Your task to perform on an android device: turn off wifi Image 0: 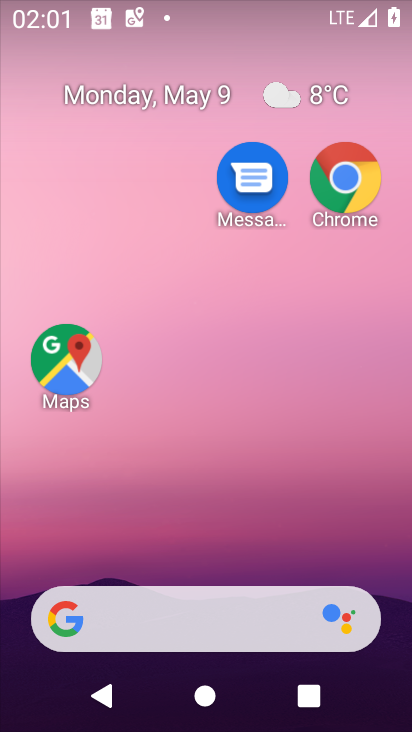
Step 0: drag from (259, 114) to (409, 620)
Your task to perform on an android device: turn off wifi Image 1: 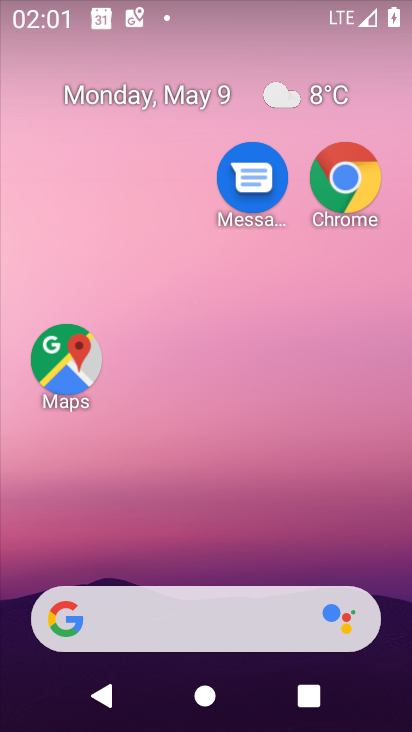
Step 1: drag from (201, 700) to (13, 16)
Your task to perform on an android device: turn off wifi Image 2: 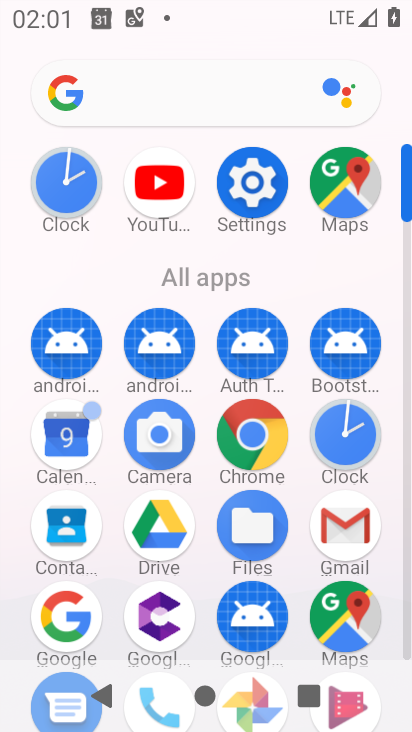
Step 2: click (279, 177)
Your task to perform on an android device: turn off wifi Image 3: 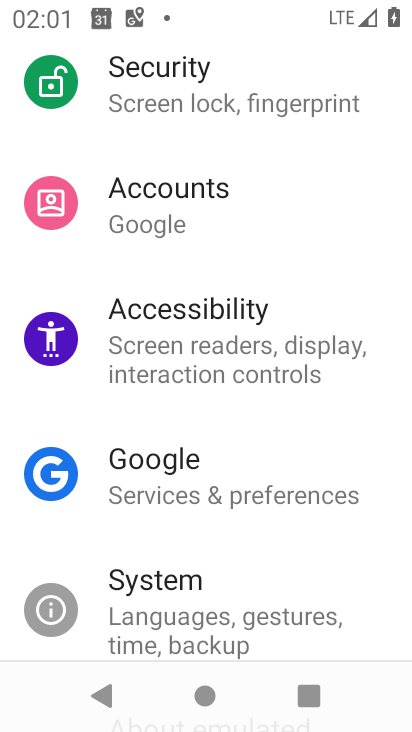
Step 3: drag from (258, 143) to (398, 662)
Your task to perform on an android device: turn off wifi Image 4: 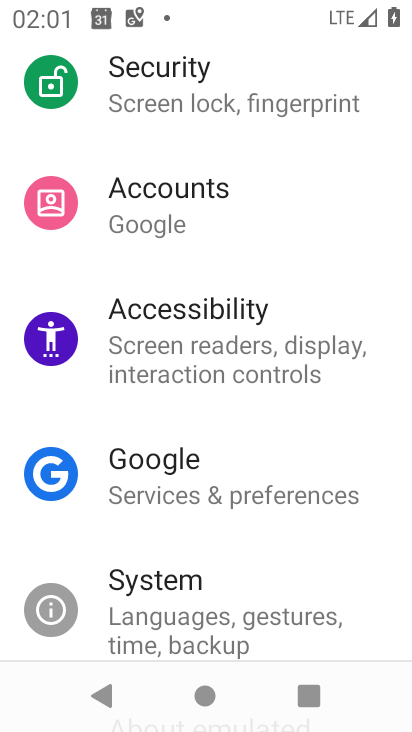
Step 4: drag from (144, 141) to (292, 656)
Your task to perform on an android device: turn off wifi Image 5: 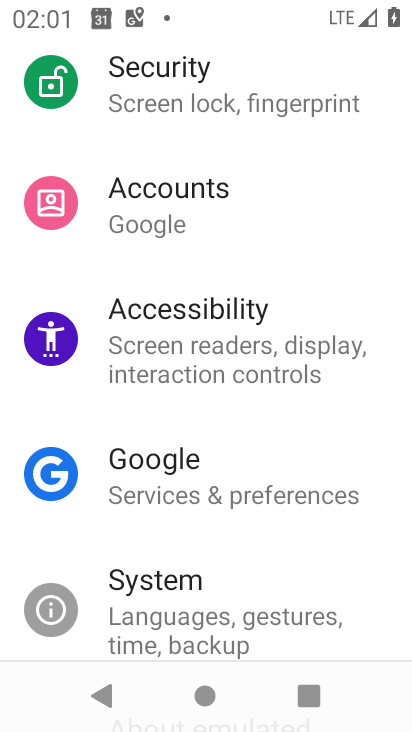
Step 5: drag from (120, 143) to (210, 509)
Your task to perform on an android device: turn off wifi Image 6: 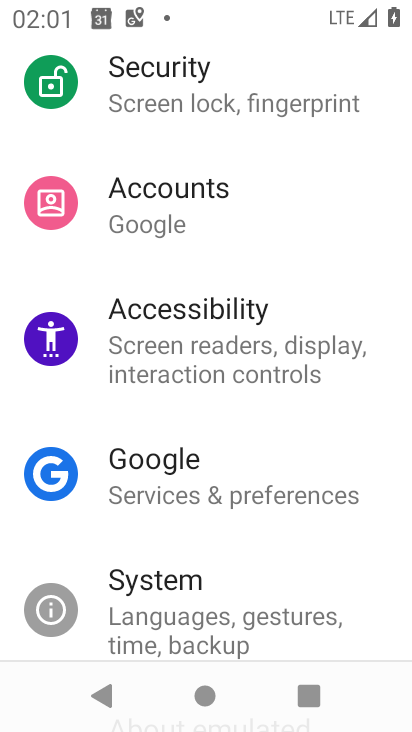
Step 6: drag from (245, 231) to (268, 572)
Your task to perform on an android device: turn off wifi Image 7: 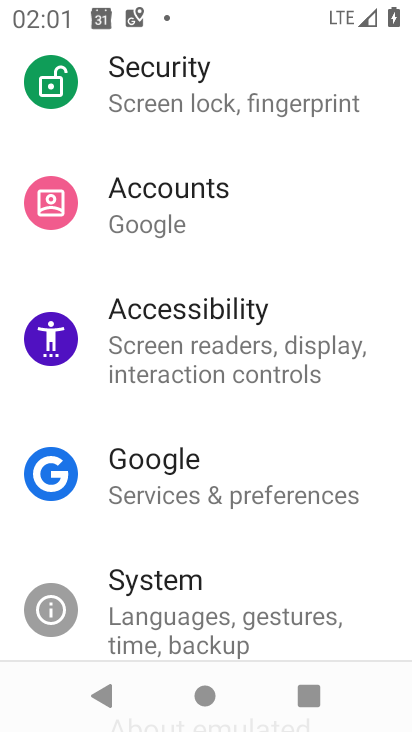
Step 7: drag from (260, 512) to (206, 262)
Your task to perform on an android device: turn off wifi Image 8: 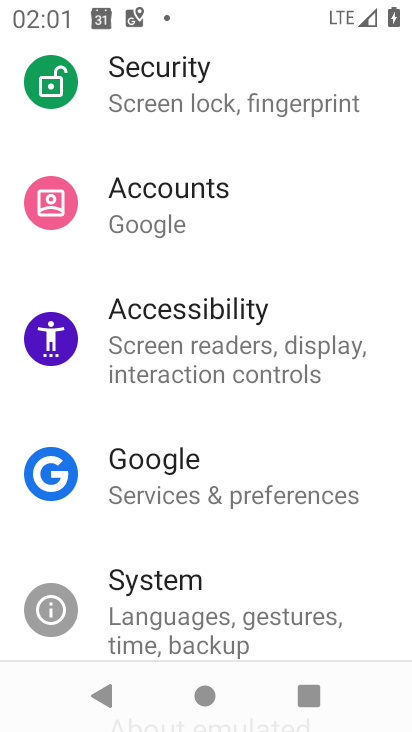
Step 8: drag from (205, 166) to (225, 487)
Your task to perform on an android device: turn off wifi Image 9: 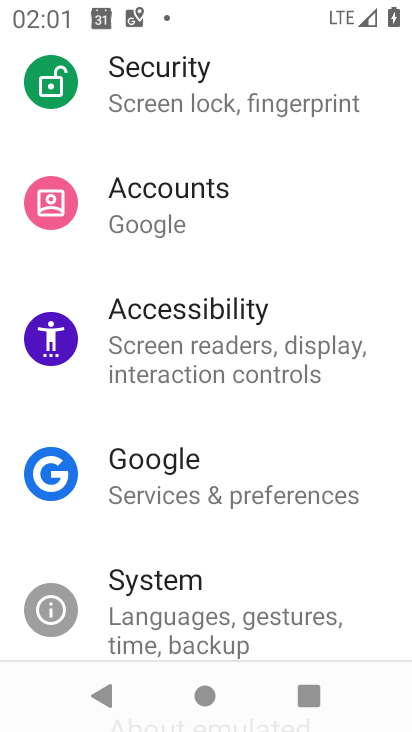
Step 9: click (102, 697)
Your task to perform on an android device: turn off wifi Image 10: 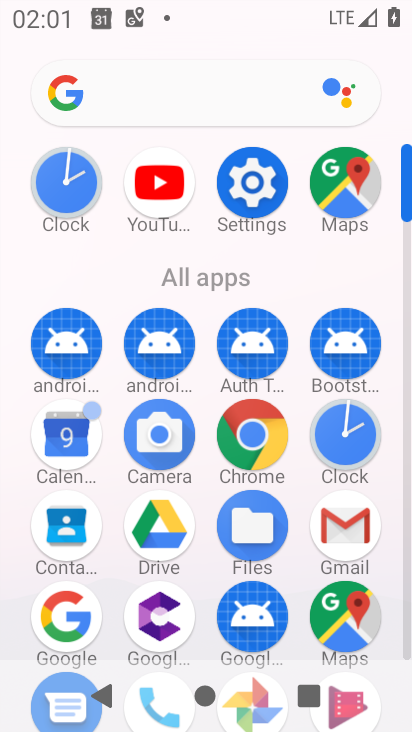
Step 10: click (234, 182)
Your task to perform on an android device: turn off wifi Image 11: 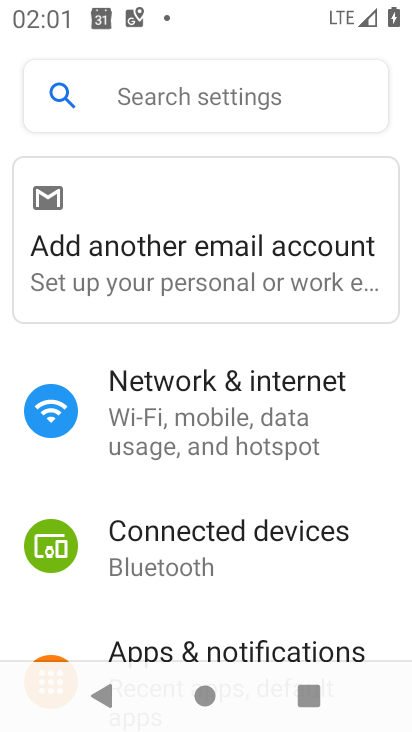
Step 11: click (156, 86)
Your task to perform on an android device: turn off wifi Image 12: 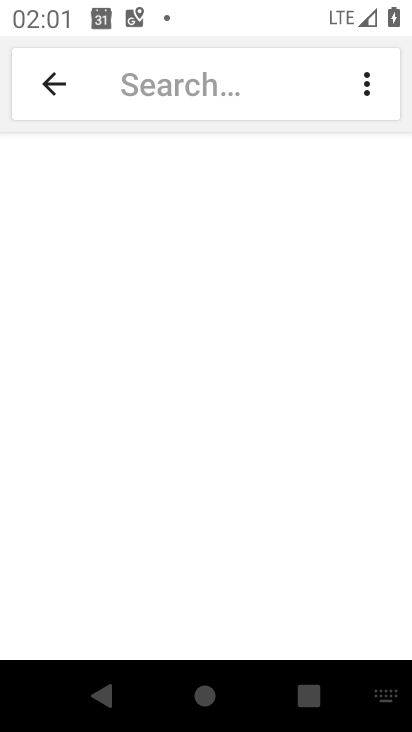
Step 12: click (48, 83)
Your task to perform on an android device: turn off wifi Image 13: 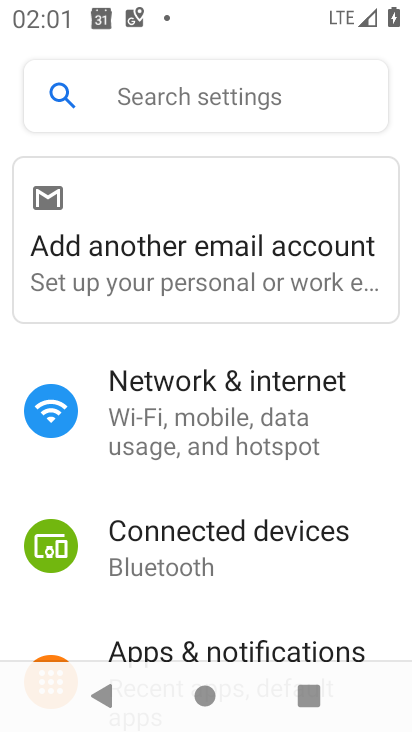
Step 13: click (181, 388)
Your task to perform on an android device: turn off wifi Image 14: 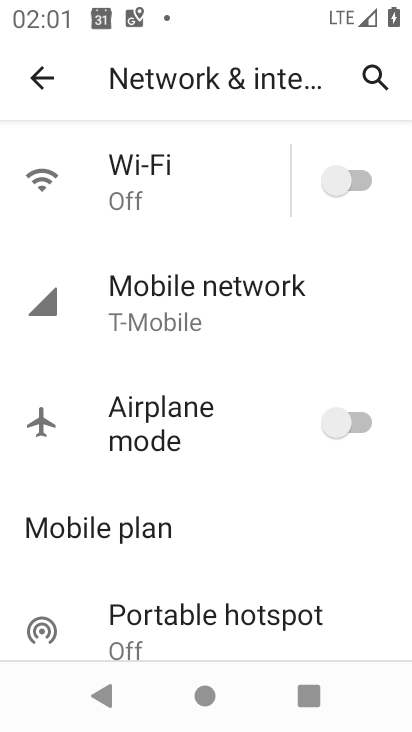
Step 14: task complete